Your task to perform on an android device: check google app version Image 0: 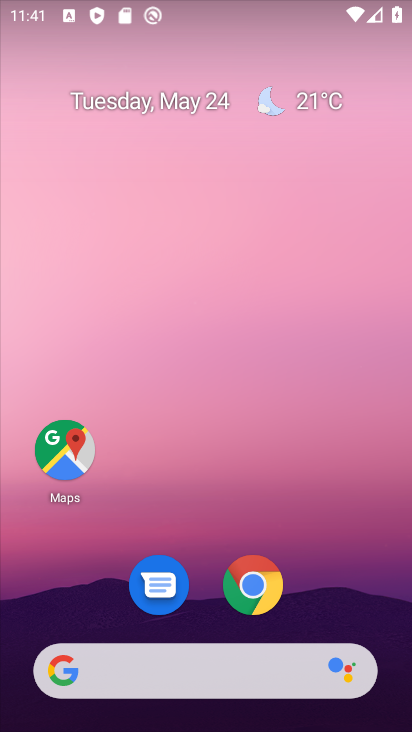
Step 0: click (208, 664)
Your task to perform on an android device: check google app version Image 1: 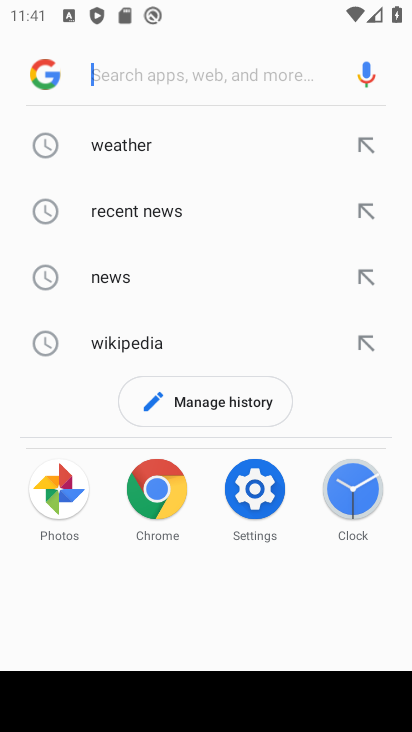
Step 1: click (49, 75)
Your task to perform on an android device: check google app version Image 2: 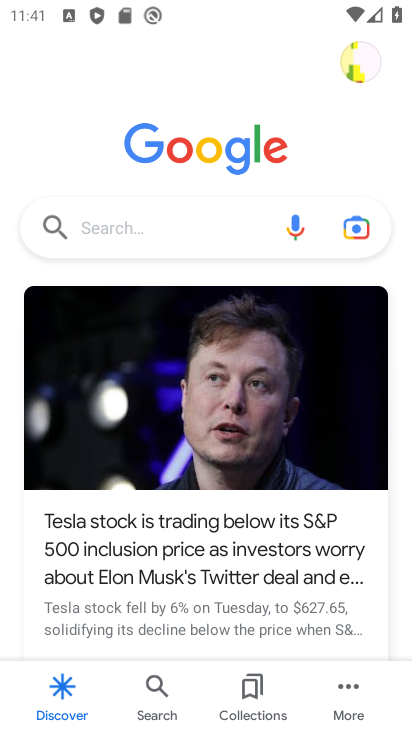
Step 2: click (342, 683)
Your task to perform on an android device: check google app version Image 3: 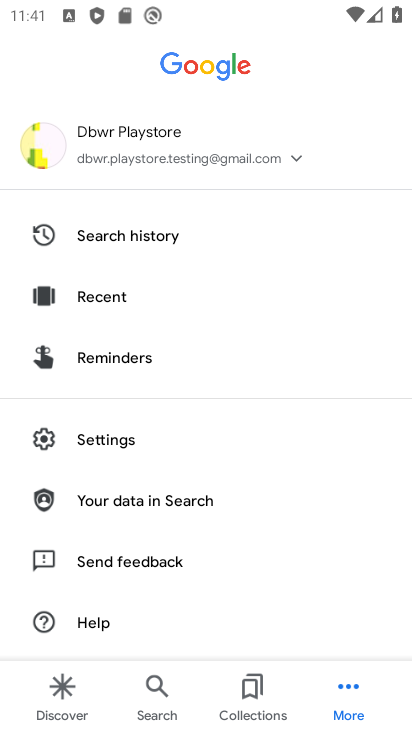
Step 3: click (137, 443)
Your task to perform on an android device: check google app version Image 4: 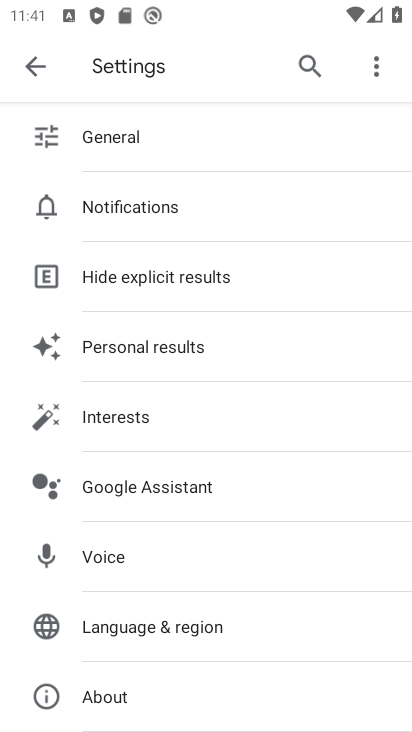
Step 4: click (138, 679)
Your task to perform on an android device: check google app version Image 5: 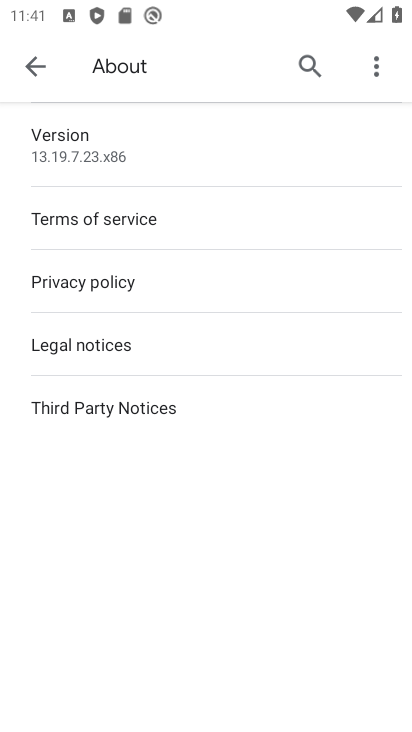
Step 5: task complete